Your task to perform on an android device: Open the phone app and click the voicemail tab. Image 0: 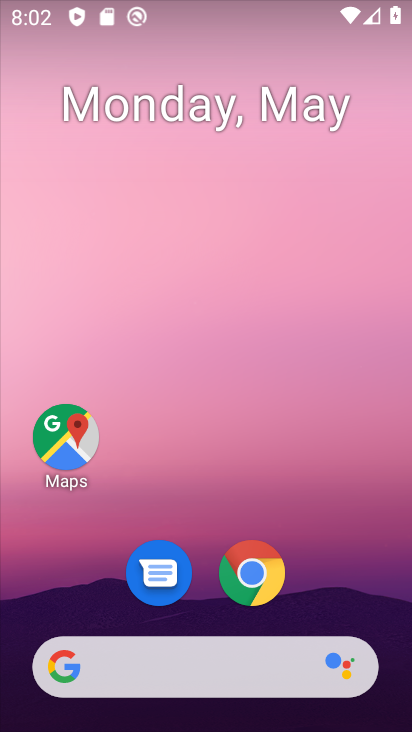
Step 0: drag from (55, 601) to (208, 61)
Your task to perform on an android device: Open the phone app and click the voicemail tab. Image 1: 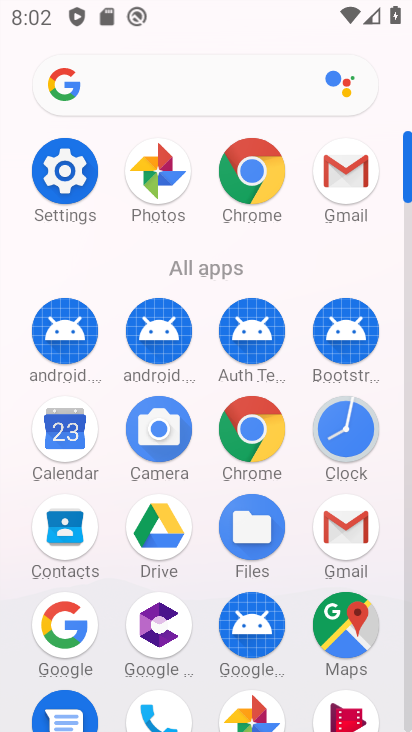
Step 1: drag from (122, 639) to (184, 393)
Your task to perform on an android device: Open the phone app and click the voicemail tab. Image 2: 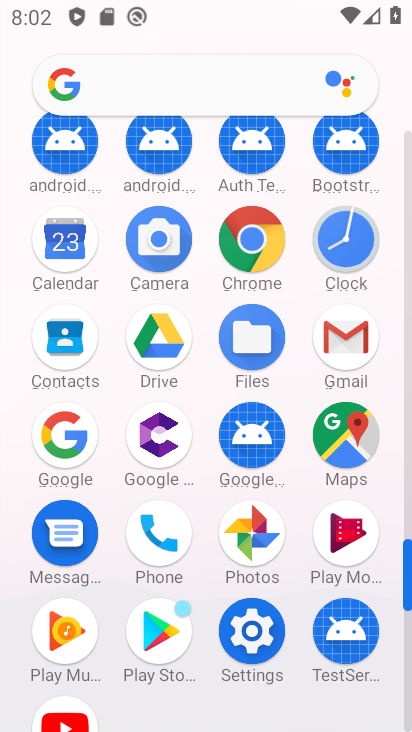
Step 2: click (168, 560)
Your task to perform on an android device: Open the phone app and click the voicemail tab. Image 3: 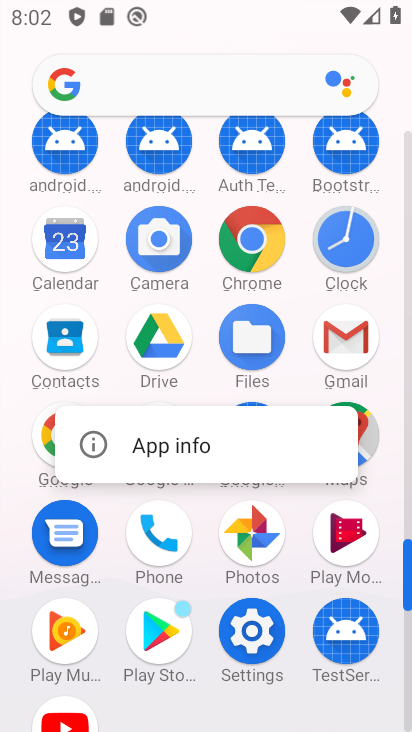
Step 3: click (152, 545)
Your task to perform on an android device: Open the phone app and click the voicemail tab. Image 4: 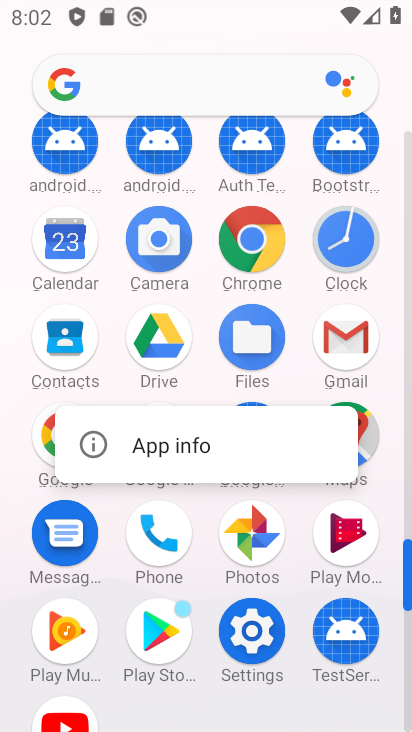
Step 4: click (170, 552)
Your task to perform on an android device: Open the phone app and click the voicemail tab. Image 5: 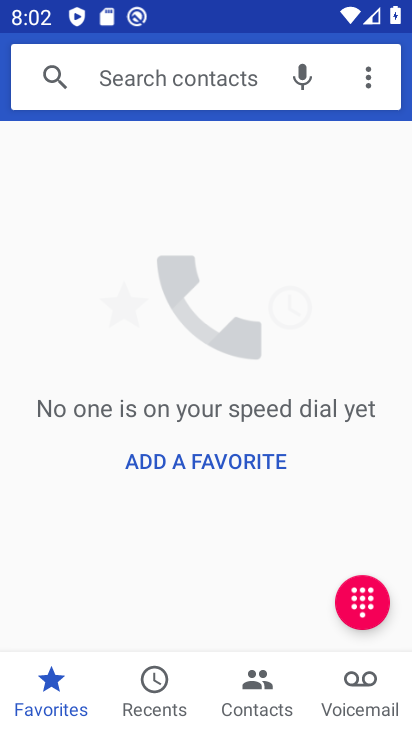
Step 5: click (353, 673)
Your task to perform on an android device: Open the phone app and click the voicemail tab. Image 6: 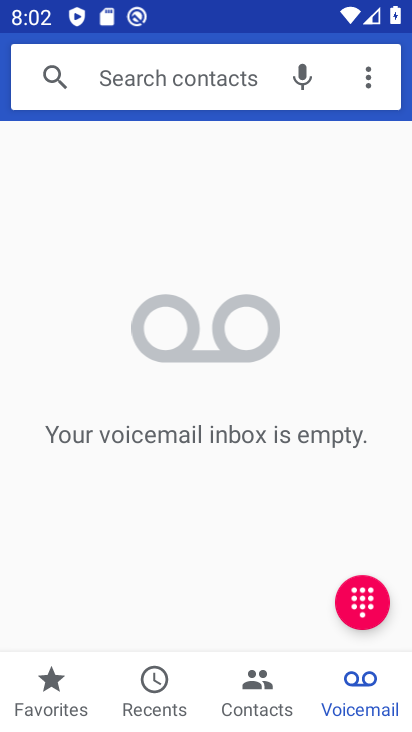
Step 6: task complete